Your task to perform on an android device: uninstall "Venmo" Image 0: 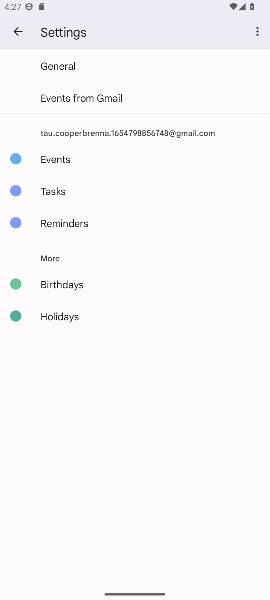
Step 0: press home button
Your task to perform on an android device: uninstall "Venmo" Image 1: 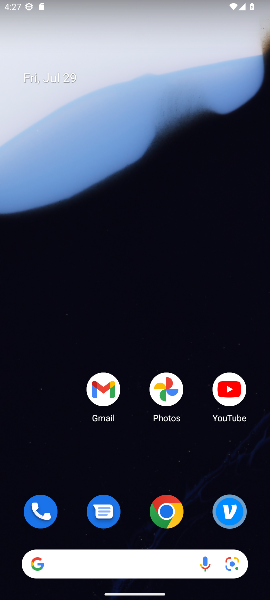
Step 1: drag from (111, 551) to (112, 208)
Your task to perform on an android device: uninstall "Venmo" Image 2: 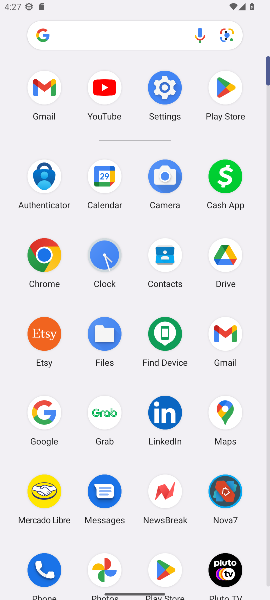
Step 2: click (228, 92)
Your task to perform on an android device: uninstall "Venmo" Image 3: 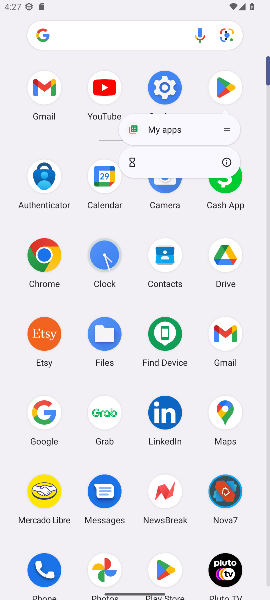
Step 3: click (222, 86)
Your task to perform on an android device: uninstall "Venmo" Image 4: 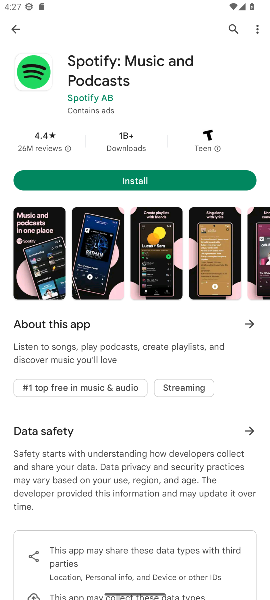
Step 4: click (12, 30)
Your task to perform on an android device: uninstall "Venmo" Image 5: 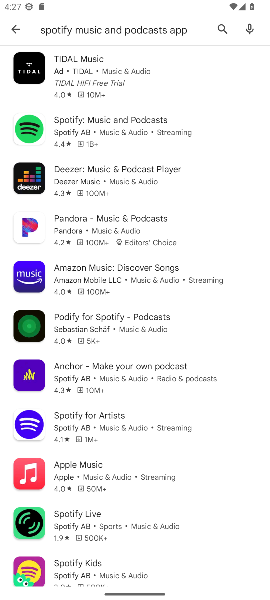
Step 5: click (8, 31)
Your task to perform on an android device: uninstall "Venmo" Image 6: 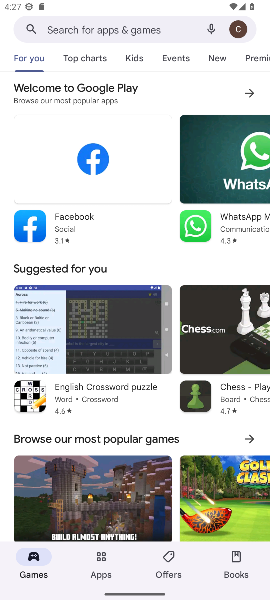
Step 6: click (66, 33)
Your task to perform on an android device: uninstall "Venmo" Image 7: 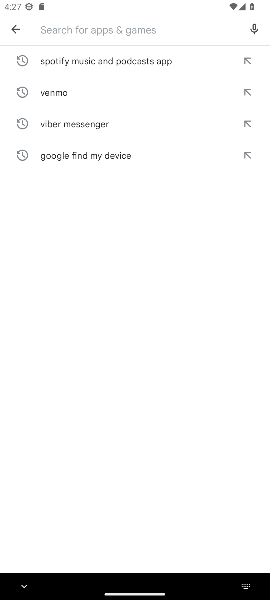
Step 7: type "venmo"
Your task to perform on an android device: uninstall "Venmo" Image 8: 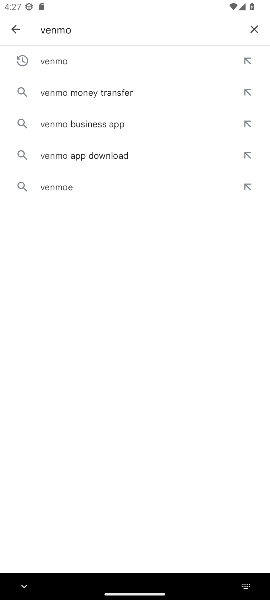
Step 8: click (58, 62)
Your task to perform on an android device: uninstall "Venmo" Image 9: 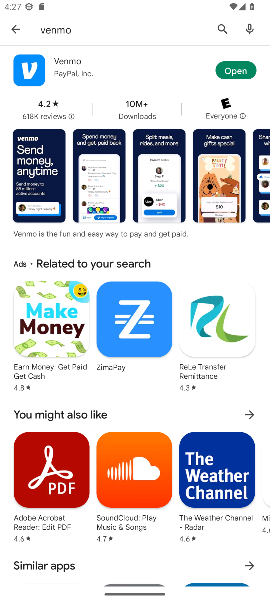
Step 9: click (89, 71)
Your task to perform on an android device: uninstall "Venmo" Image 10: 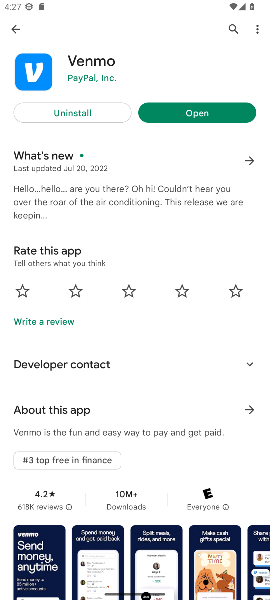
Step 10: click (73, 106)
Your task to perform on an android device: uninstall "Venmo" Image 11: 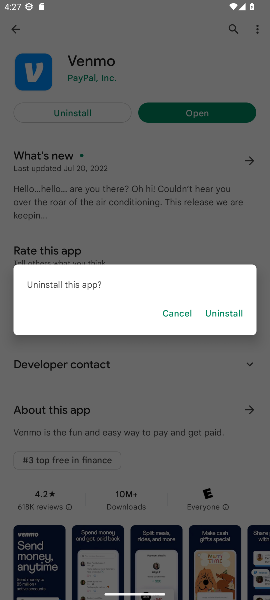
Step 11: click (214, 316)
Your task to perform on an android device: uninstall "Venmo" Image 12: 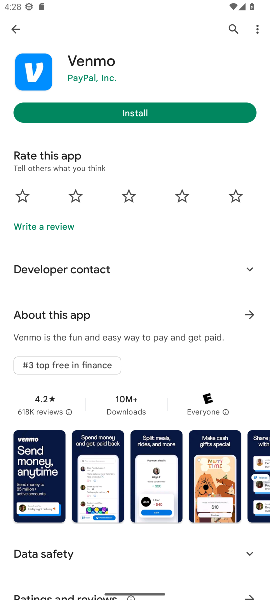
Step 12: task complete